Your task to perform on an android device: set the timer Image 0: 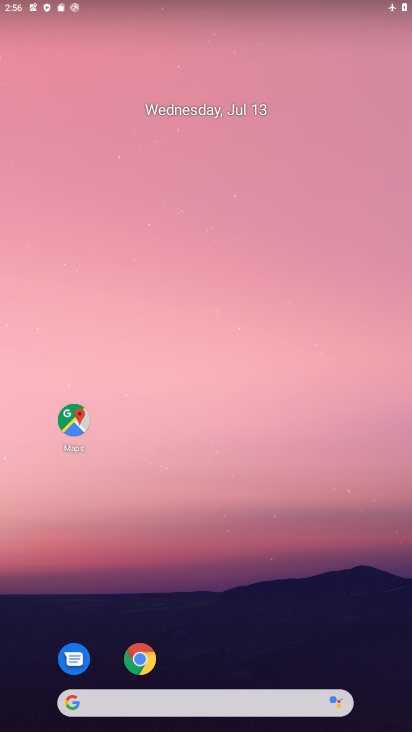
Step 0: drag from (367, 628) to (345, 229)
Your task to perform on an android device: set the timer Image 1: 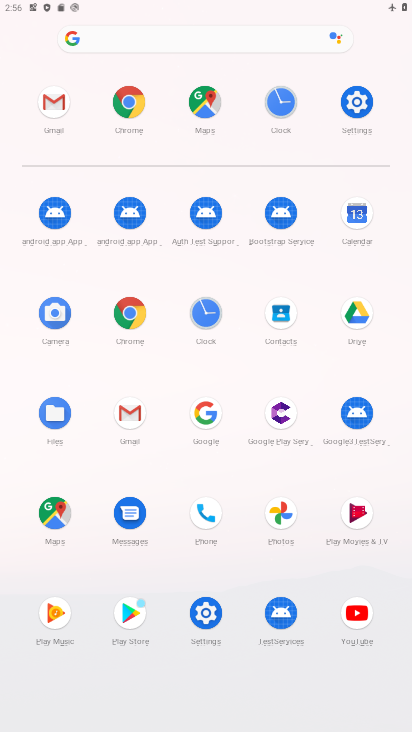
Step 1: click (205, 312)
Your task to perform on an android device: set the timer Image 2: 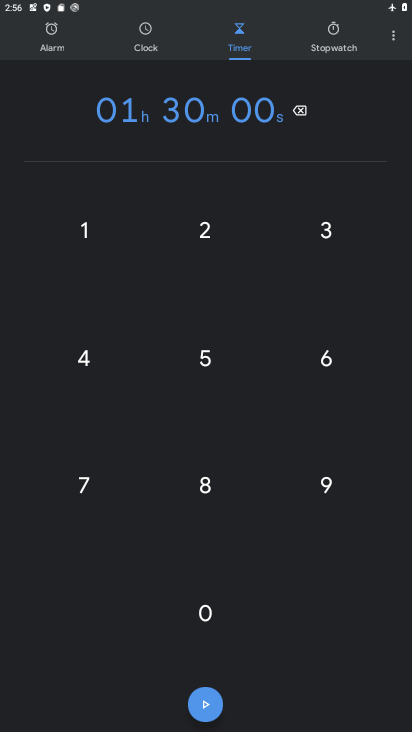
Step 2: task complete